Your task to perform on an android device: Go to Google Image 0: 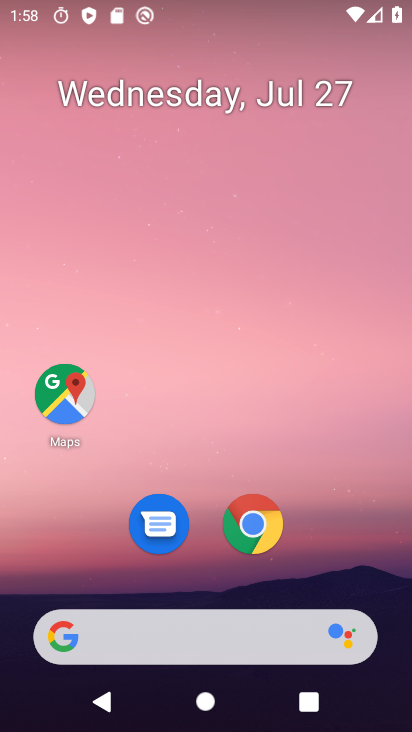
Step 0: click (241, 643)
Your task to perform on an android device: Go to Google Image 1: 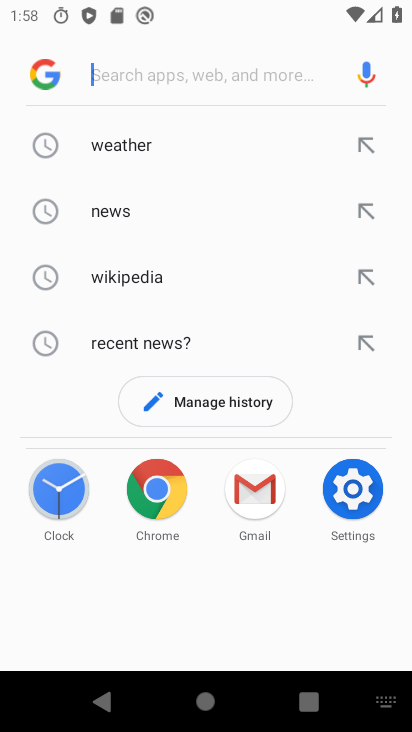
Step 1: click (50, 63)
Your task to perform on an android device: Go to Google Image 2: 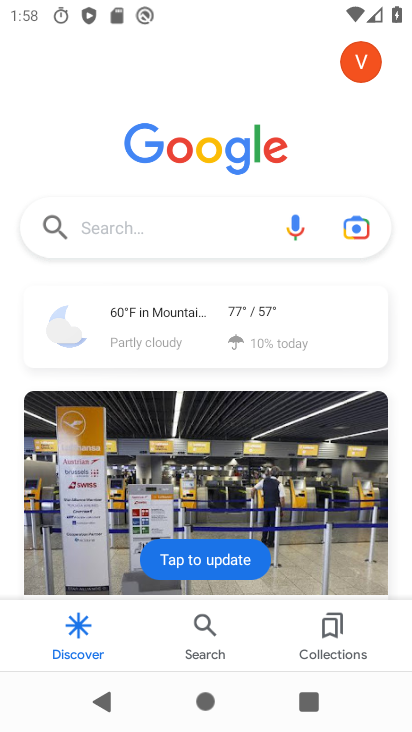
Step 2: task complete